Your task to perform on an android device: change the clock display to digital Image 0: 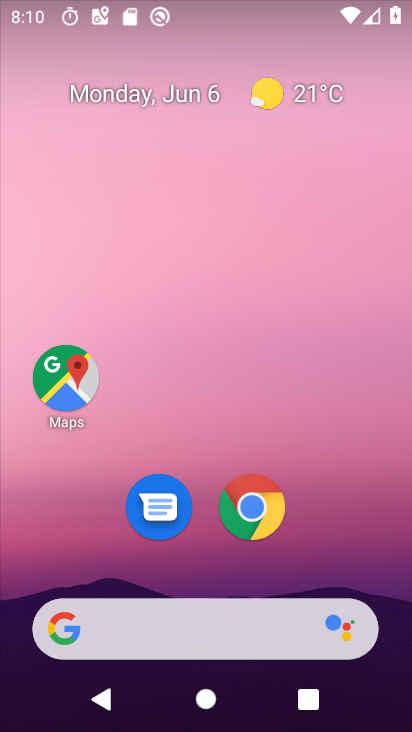
Step 0: drag from (346, 519) to (270, 11)
Your task to perform on an android device: change the clock display to digital Image 1: 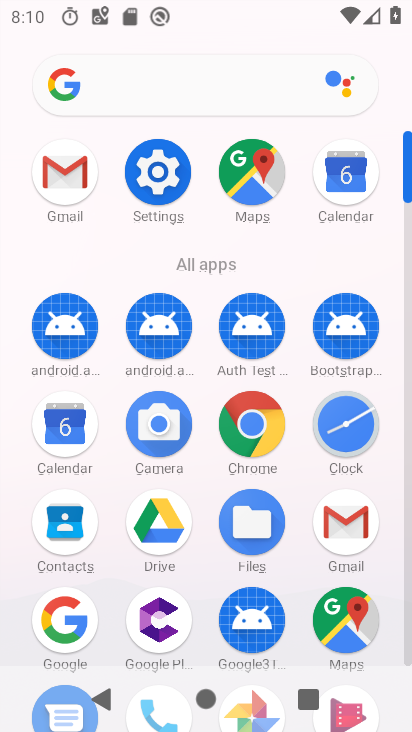
Step 1: click (349, 448)
Your task to perform on an android device: change the clock display to digital Image 2: 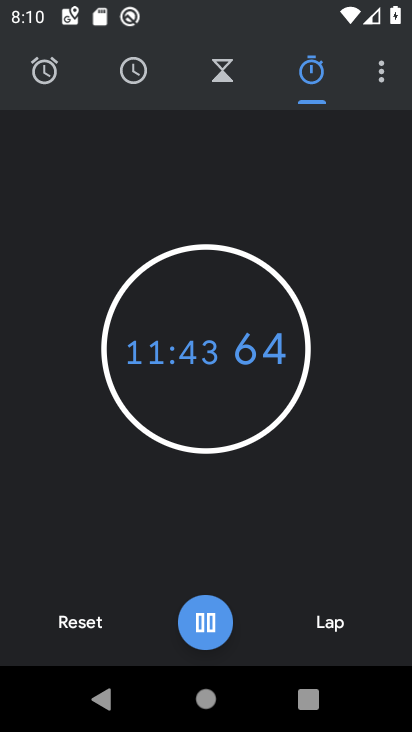
Step 2: click (377, 65)
Your task to perform on an android device: change the clock display to digital Image 3: 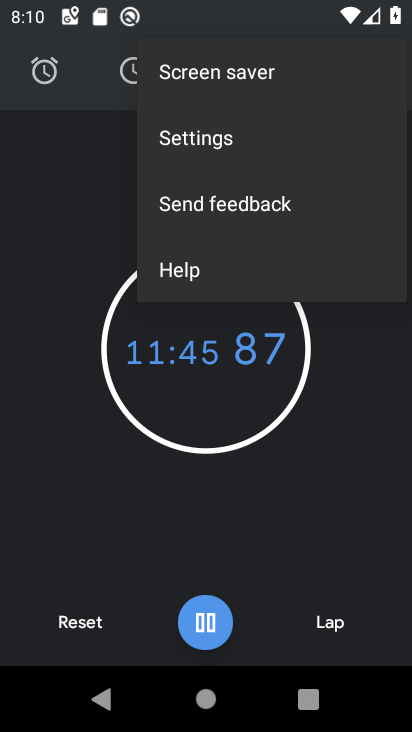
Step 3: click (219, 152)
Your task to perform on an android device: change the clock display to digital Image 4: 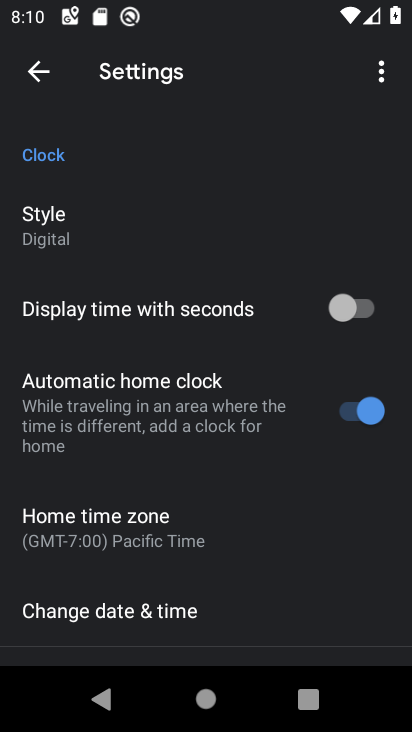
Step 4: task complete